Your task to perform on an android device: See recent photos Image 0: 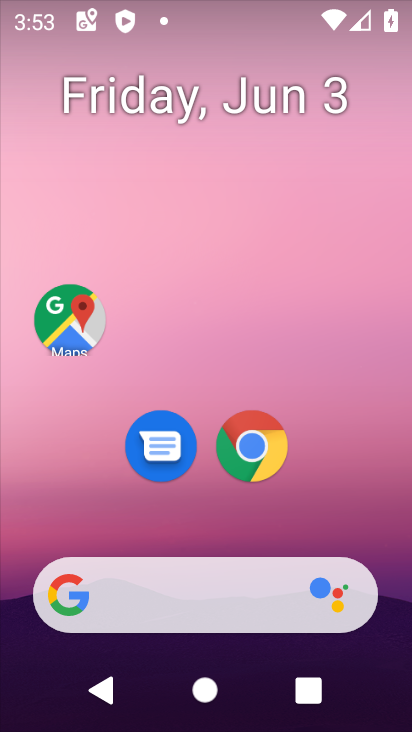
Step 0: task complete